Your task to perform on an android device: turn on javascript in the chrome app Image 0: 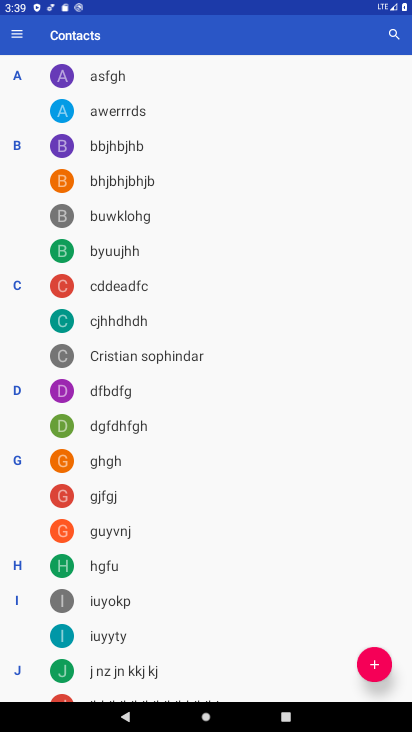
Step 0: press home button
Your task to perform on an android device: turn on javascript in the chrome app Image 1: 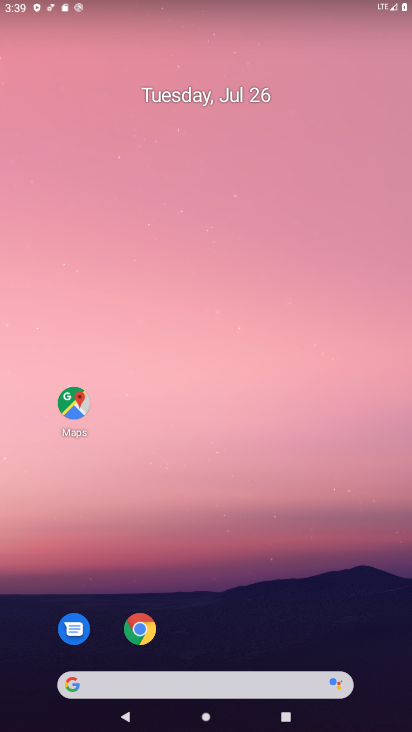
Step 1: click (136, 622)
Your task to perform on an android device: turn on javascript in the chrome app Image 2: 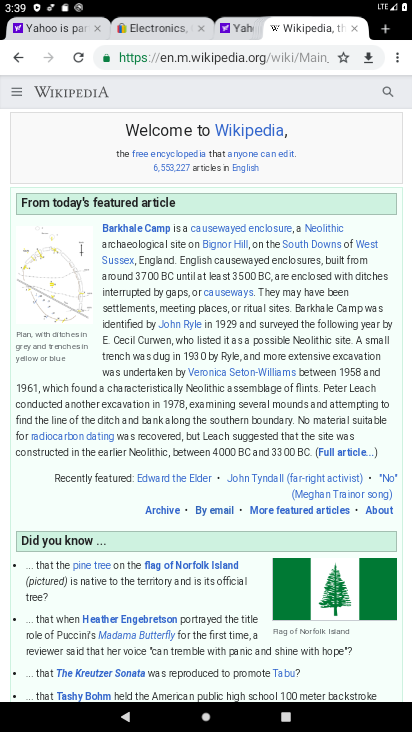
Step 2: click (398, 59)
Your task to perform on an android device: turn on javascript in the chrome app Image 3: 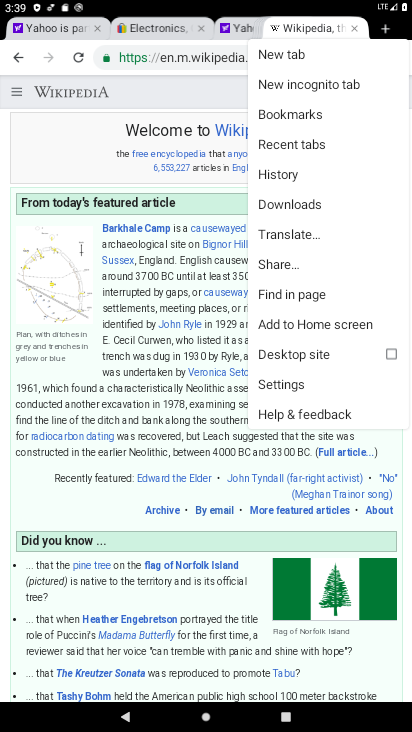
Step 3: click (286, 383)
Your task to perform on an android device: turn on javascript in the chrome app Image 4: 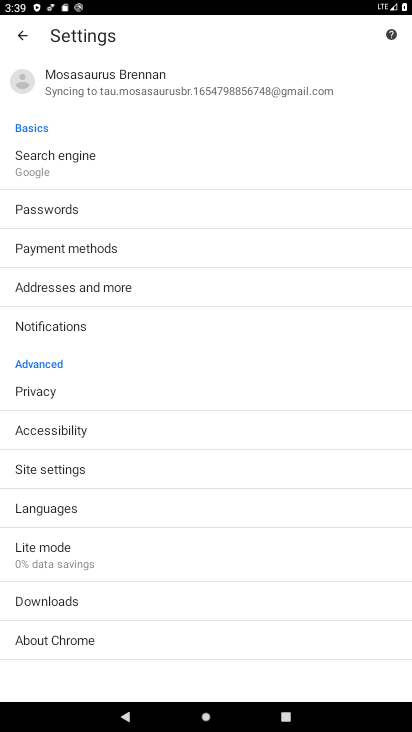
Step 4: click (57, 466)
Your task to perform on an android device: turn on javascript in the chrome app Image 5: 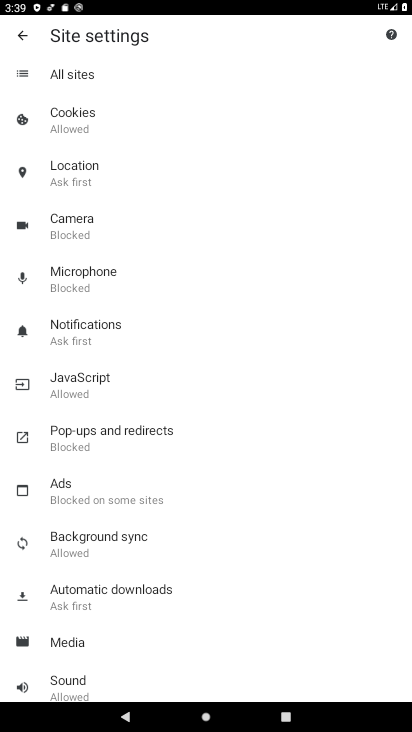
Step 5: click (75, 381)
Your task to perform on an android device: turn on javascript in the chrome app Image 6: 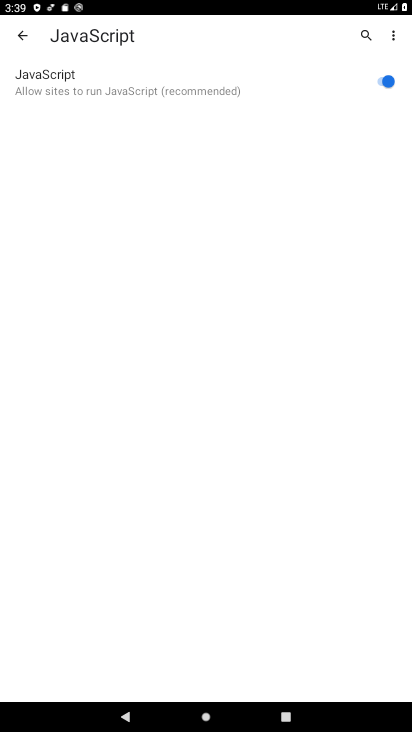
Step 6: task complete